Your task to perform on an android device: turn on data saver in the chrome app Image 0: 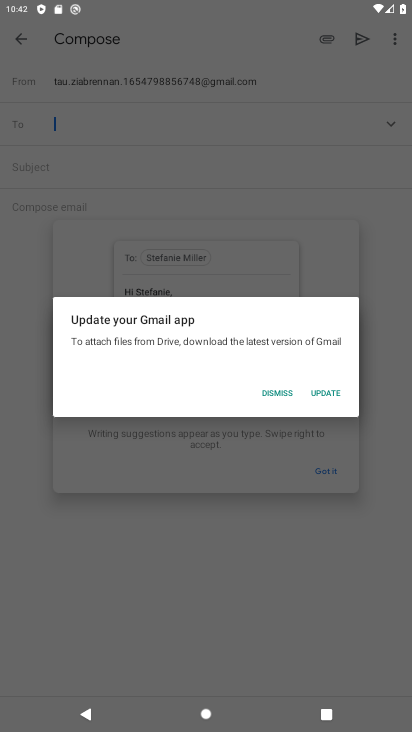
Step 0: press home button
Your task to perform on an android device: turn on data saver in the chrome app Image 1: 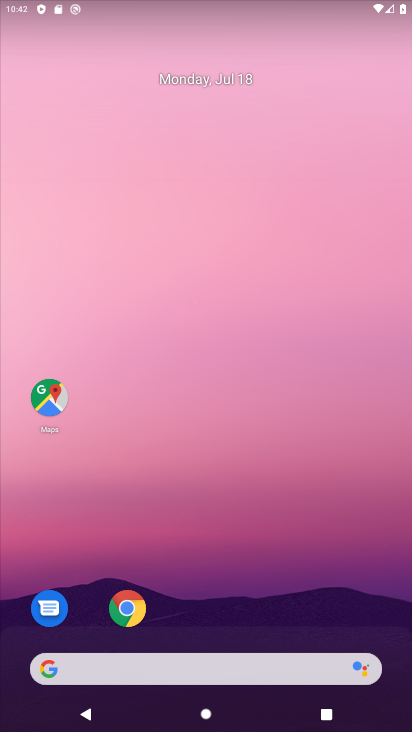
Step 1: click (141, 612)
Your task to perform on an android device: turn on data saver in the chrome app Image 2: 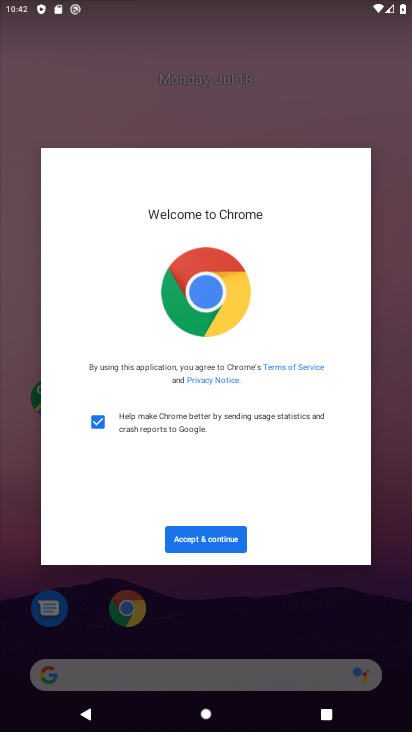
Step 2: click (220, 530)
Your task to perform on an android device: turn on data saver in the chrome app Image 3: 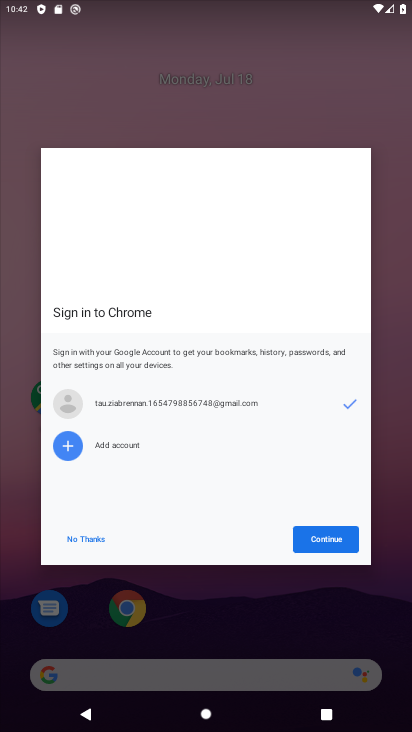
Step 3: click (339, 547)
Your task to perform on an android device: turn on data saver in the chrome app Image 4: 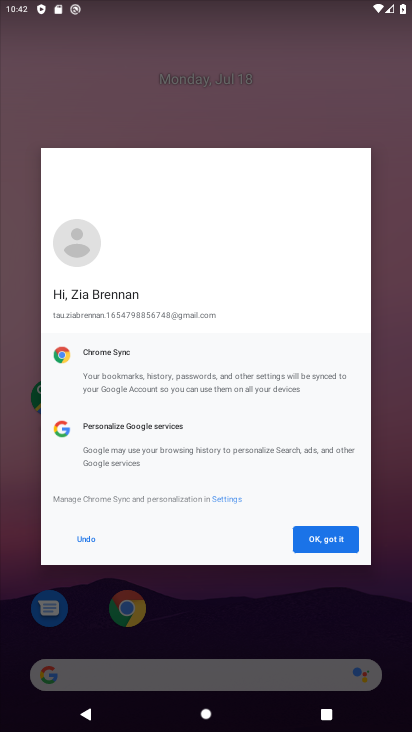
Step 4: click (339, 547)
Your task to perform on an android device: turn on data saver in the chrome app Image 5: 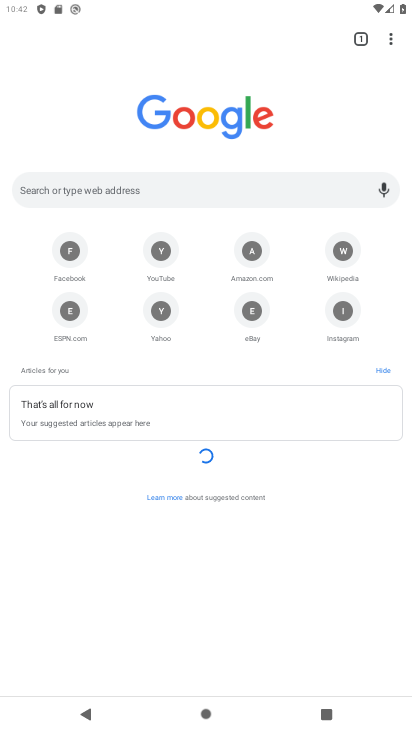
Step 5: click (392, 43)
Your task to perform on an android device: turn on data saver in the chrome app Image 6: 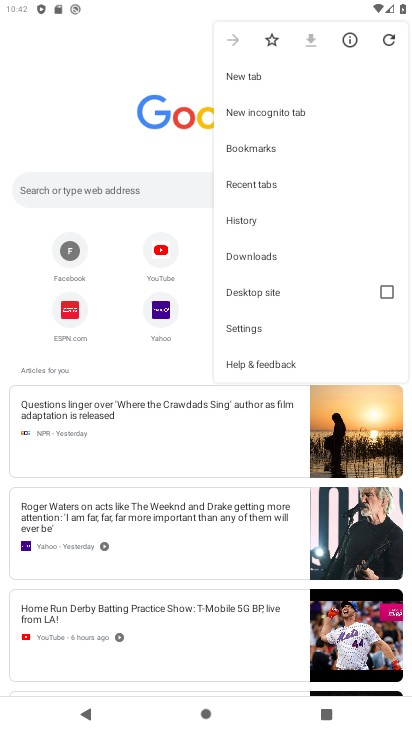
Step 6: click (248, 322)
Your task to perform on an android device: turn on data saver in the chrome app Image 7: 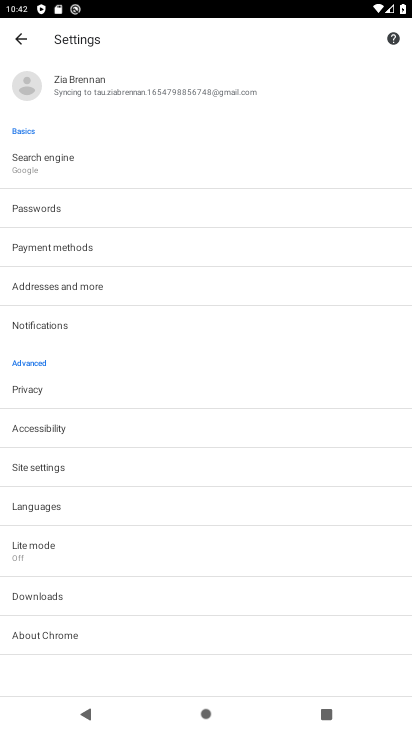
Step 7: click (95, 551)
Your task to perform on an android device: turn on data saver in the chrome app Image 8: 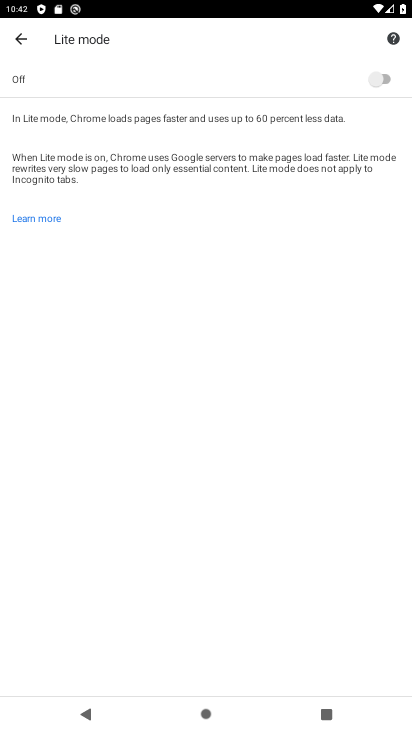
Step 8: click (377, 86)
Your task to perform on an android device: turn on data saver in the chrome app Image 9: 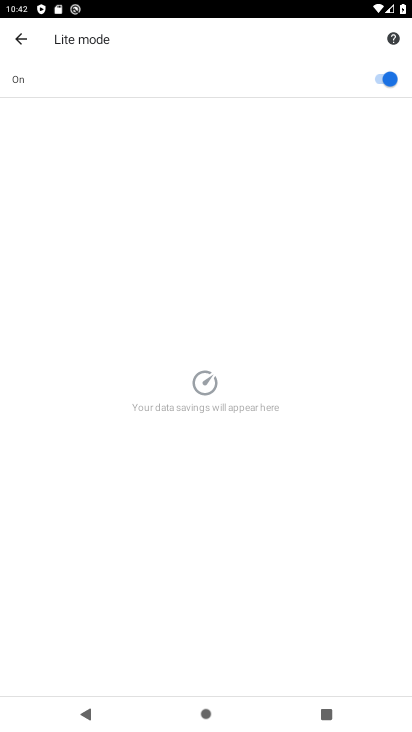
Step 9: task complete